Your task to perform on an android device: visit the assistant section in the google photos Image 0: 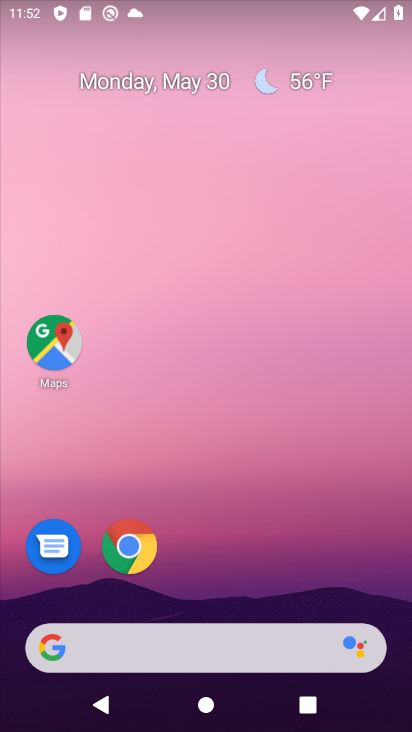
Step 0: click (129, 96)
Your task to perform on an android device: visit the assistant section in the google photos Image 1: 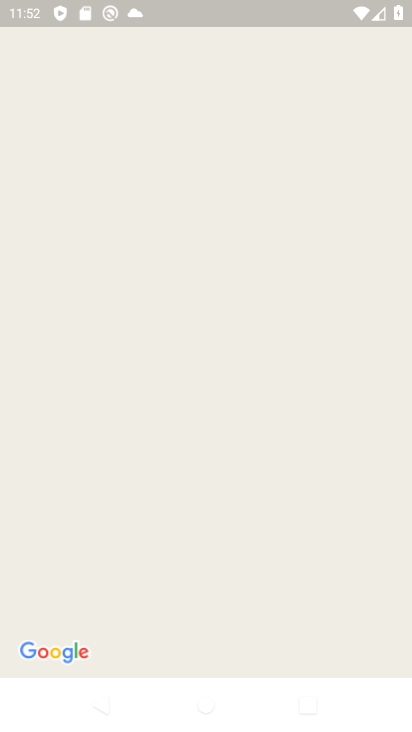
Step 1: drag from (253, 651) to (188, 274)
Your task to perform on an android device: visit the assistant section in the google photos Image 2: 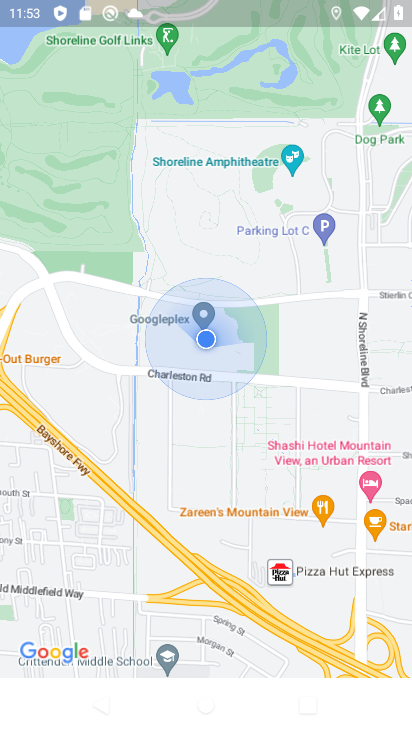
Step 2: press home button
Your task to perform on an android device: visit the assistant section in the google photos Image 3: 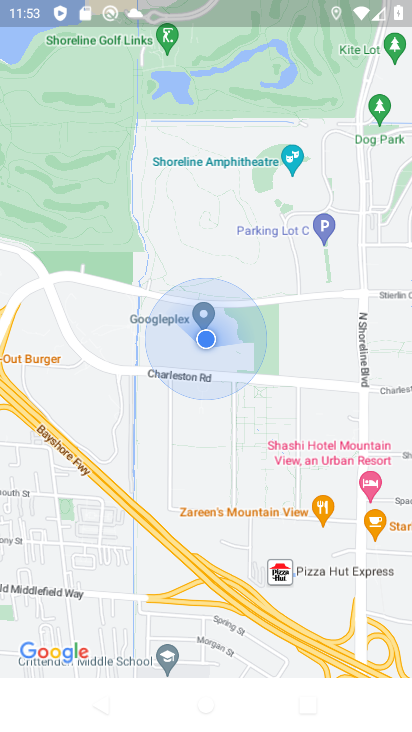
Step 3: press home button
Your task to perform on an android device: visit the assistant section in the google photos Image 4: 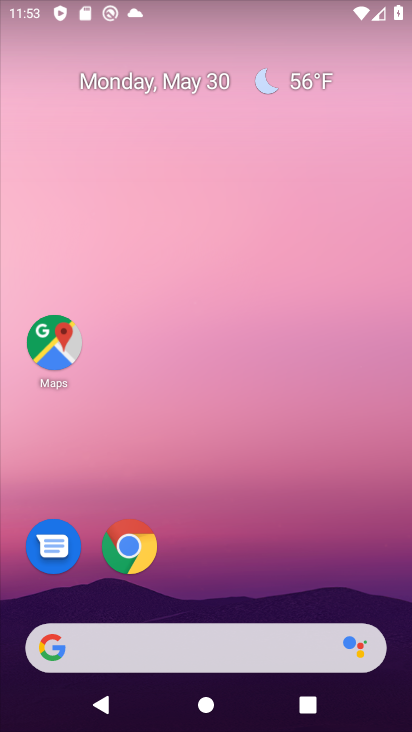
Step 4: drag from (236, 679) to (156, 93)
Your task to perform on an android device: visit the assistant section in the google photos Image 5: 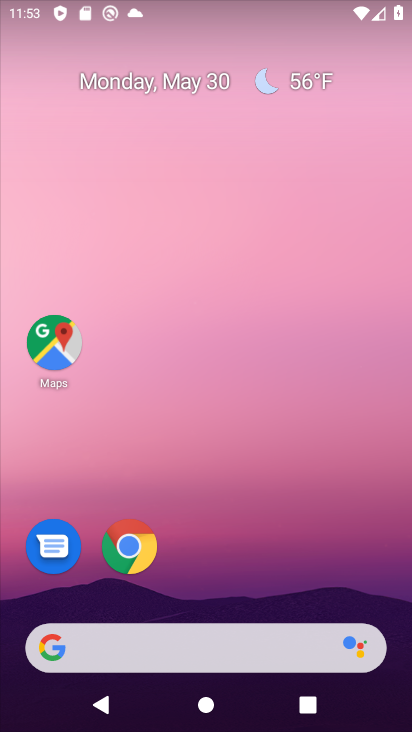
Step 5: drag from (238, 661) to (248, 195)
Your task to perform on an android device: visit the assistant section in the google photos Image 6: 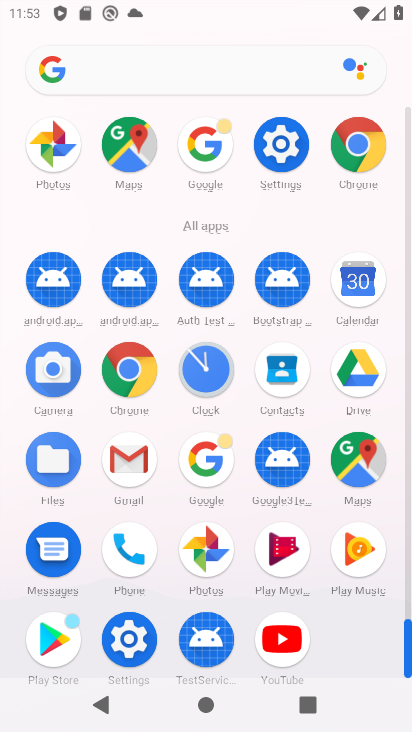
Step 6: click (203, 547)
Your task to perform on an android device: visit the assistant section in the google photos Image 7: 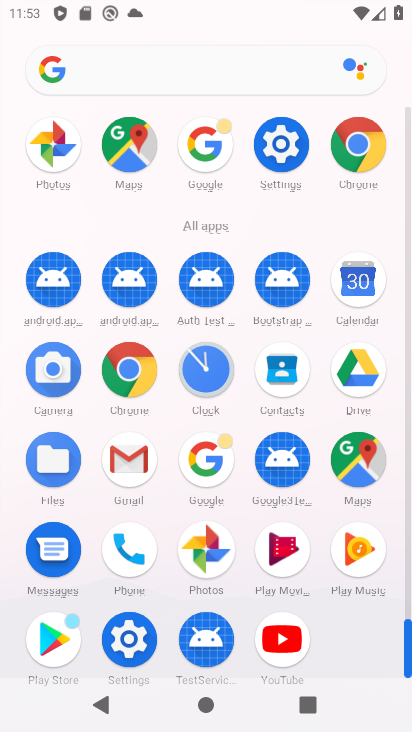
Step 7: click (206, 545)
Your task to perform on an android device: visit the assistant section in the google photos Image 8: 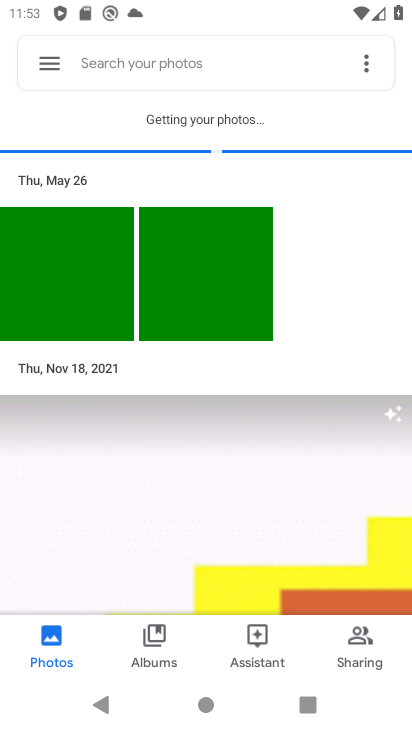
Step 8: click (261, 648)
Your task to perform on an android device: visit the assistant section in the google photos Image 9: 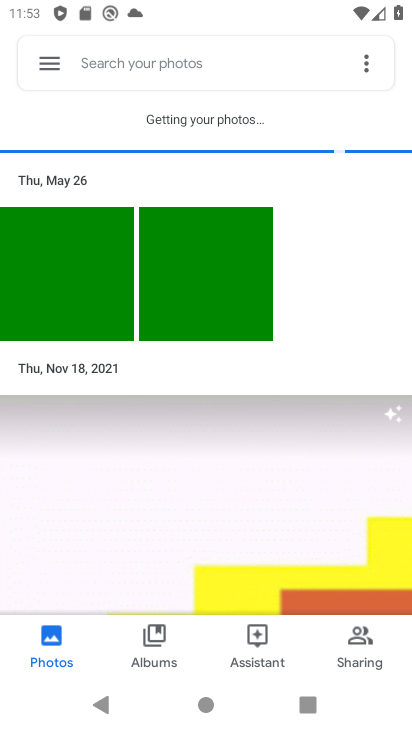
Step 9: click (260, 649)
Your task to perform on an android device: visit the assistant section in the google photos Image 10: 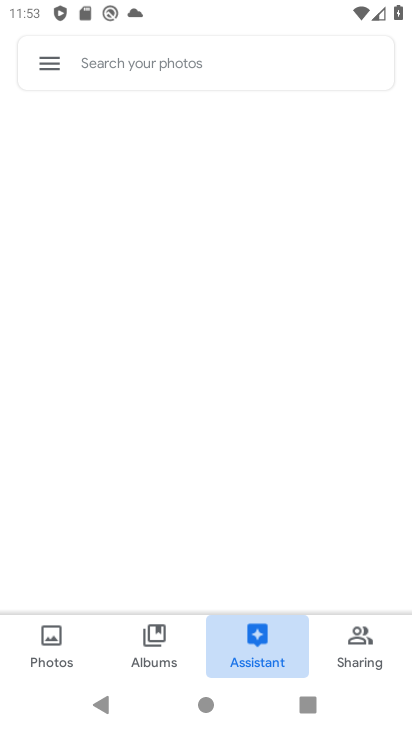
Step 10: click (256, 646)
Your task to perform on an android device: visit the assistant section in the google photos Image 11: 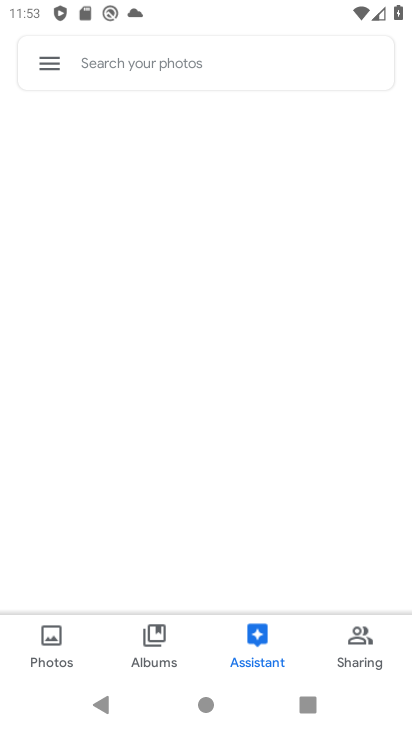
Step 11: click (258, 646)
Your task to perform on an android device: visit the assistant section in the google photos Image 12: 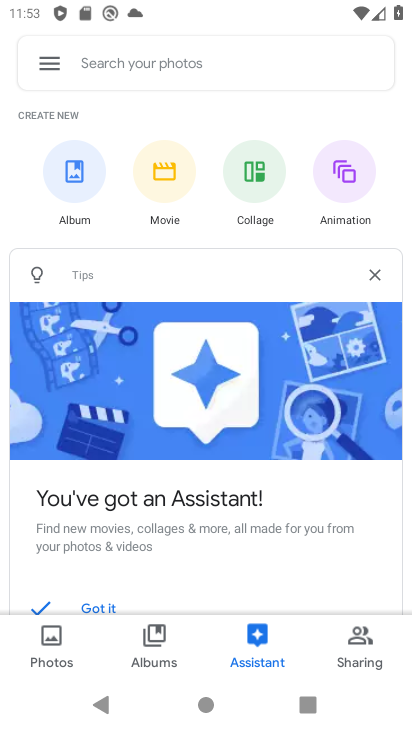
Step 12: task complete